Your task to perform on an android device: Check the news Image 0: 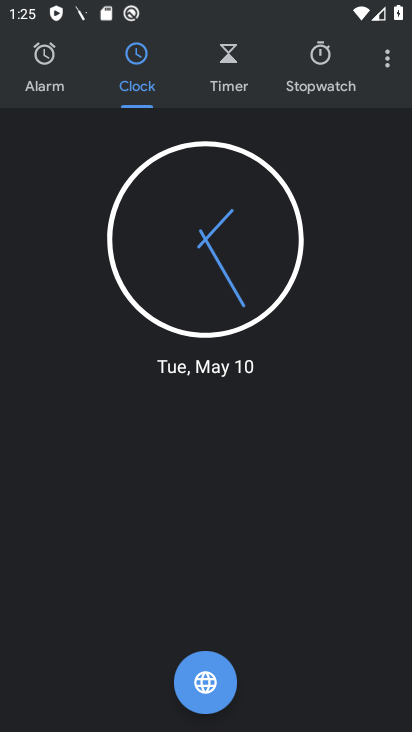
Step 0: press home button
Your task to perform on an android device: Check the news Image 1: 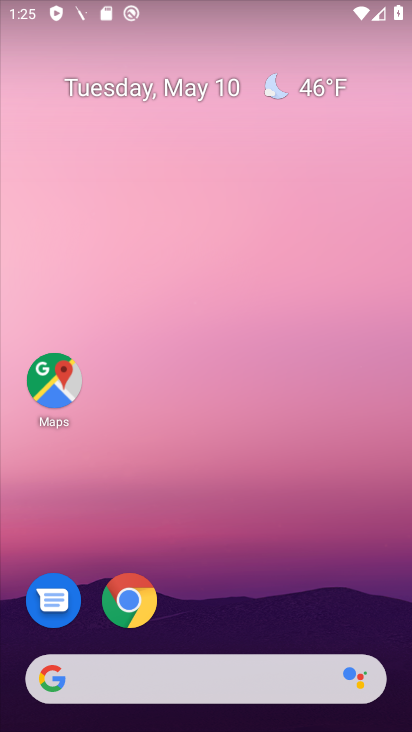
Step 1: drag from (219, 657) to (150, 51)
Your task to perform on an android device: Check the news Image 2: 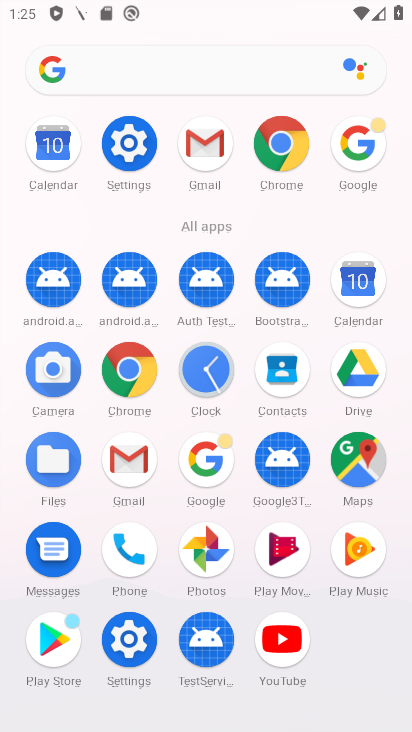
Step 2: click (203, 457)
Your task to perform on an android device: Check the news Image 3: 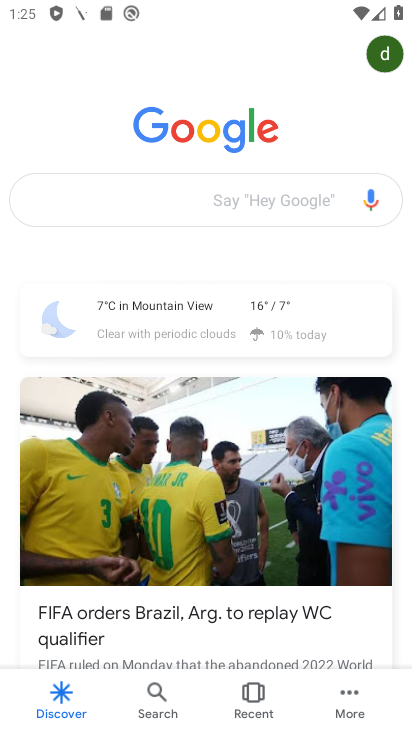
Step 3: task complete